Your task to perform on an android device: make emails show in primary in the gmail app Image 0: 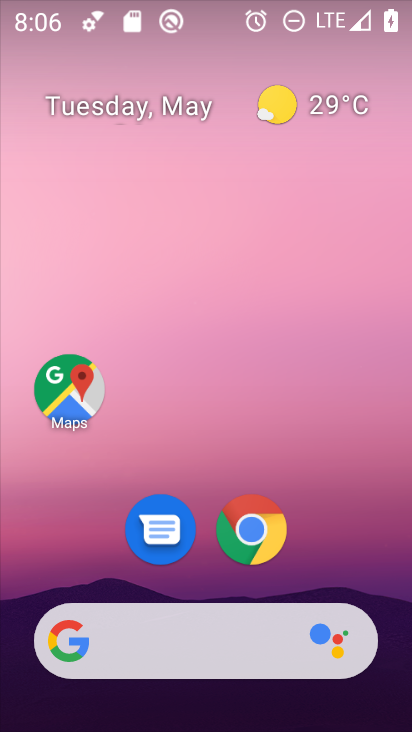
Step 0: drag from (381, 665) to (258, 81)
Your task to perform on an android device: make emails show in primary in the gmail app Image 1: 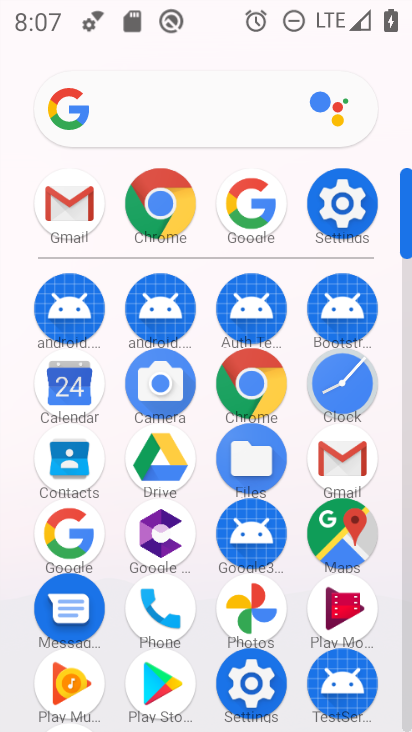
Step 1: click (333, 461)
Your task to perform on an android device: make emails show in primary in the gmail app Image 2: 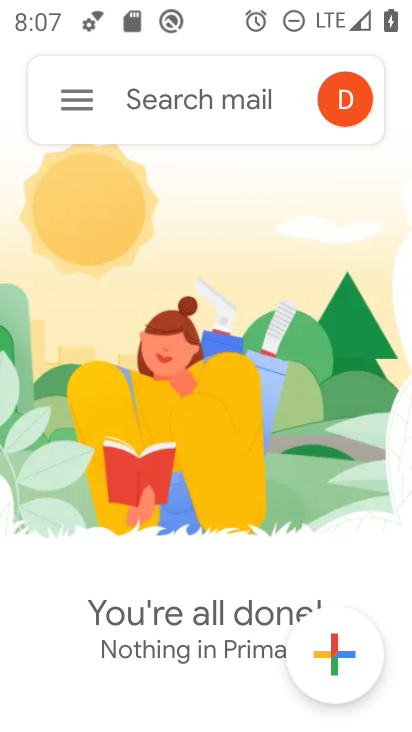
Step 2: task complete